Your task to perform on an android device: Go to network settings Image 0: 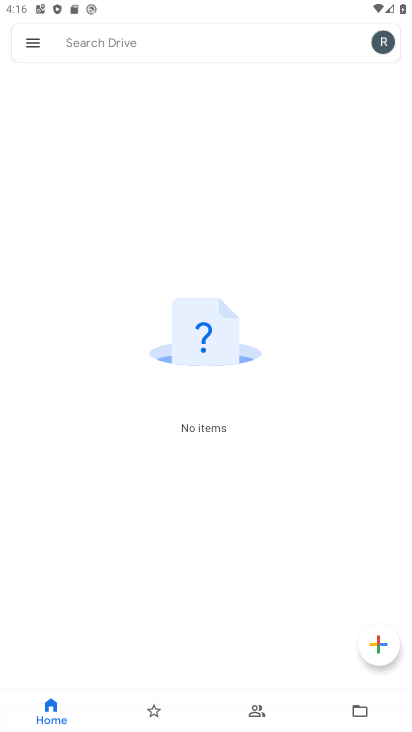
Step 0: press home button
Your task to perform on an android device: Go to network settings Image 1: 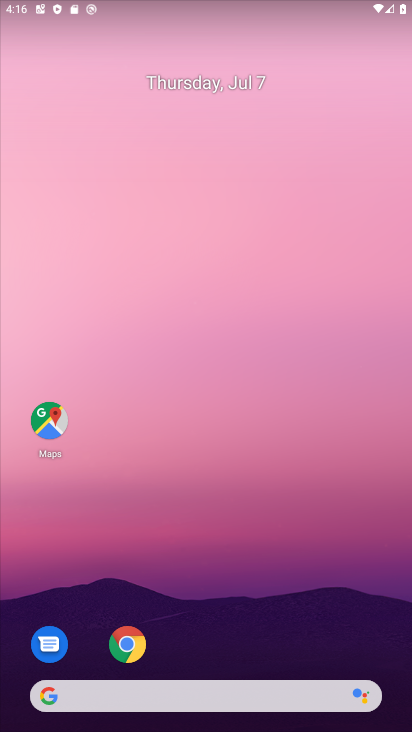
Step 1: drag from (202, 626) to (183, 184)
Your task to perform on an android device: Go to network settings Image 2: 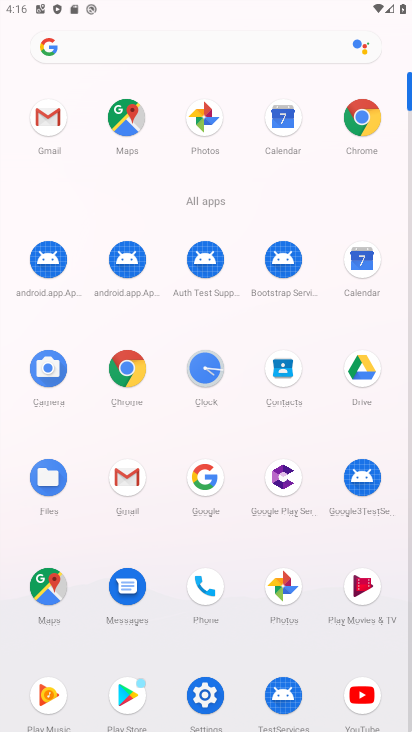
Step 2: click (204, 686)
Your task to perform on an android device: Go to network settings Image 3: 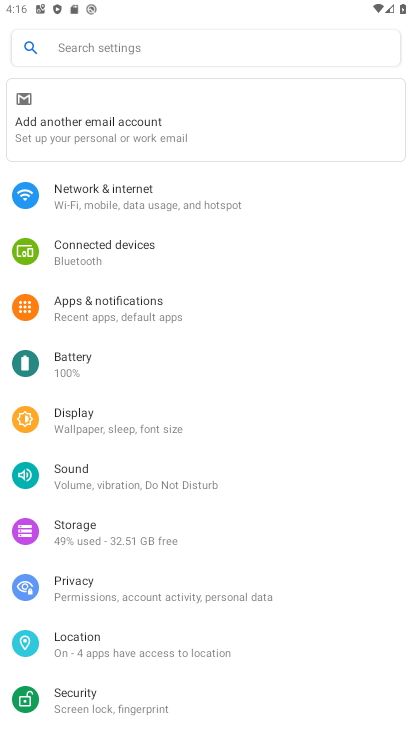
Step 3: click (139, 201)
Your task to perform on an android device: Go to network settings Image 4: 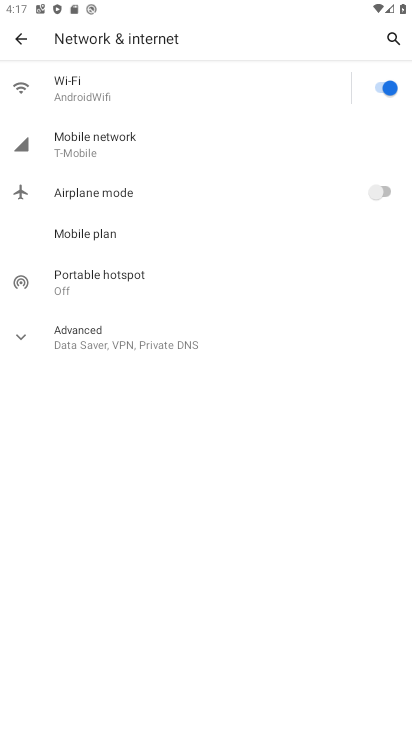
Step 4: click (100, 153)
Your task to perform on an android device: Go to network settings Image 5: 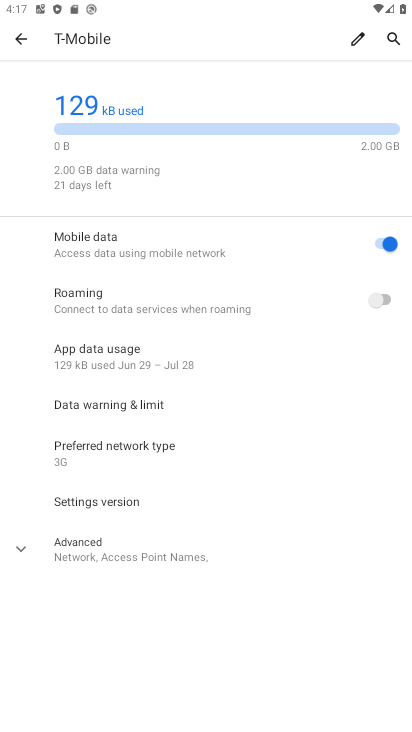
Step 5: task complete